Your task to perform on an android device: Go to battery settings Image 0: 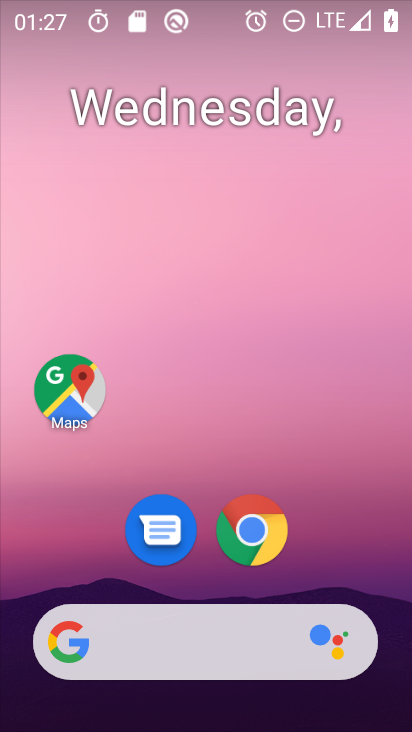
Step 0: drag from (139, 641) to (178, 50)
Your task to perform on an android device: Go to battery settings Image 1: 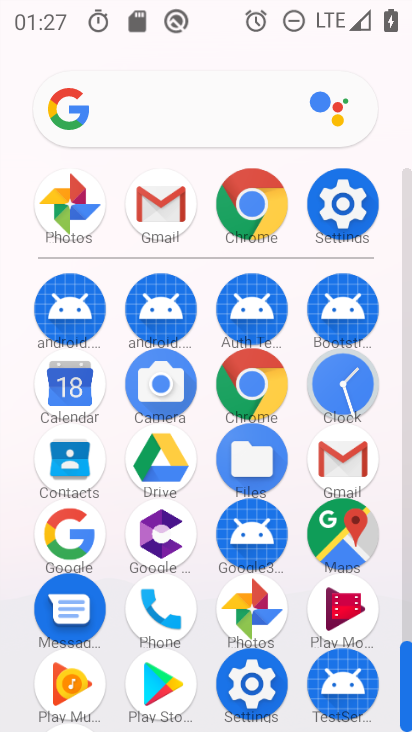
Step 1: click (334, 200)
Your task to perform on an android device: Go to battery settings Image 2: 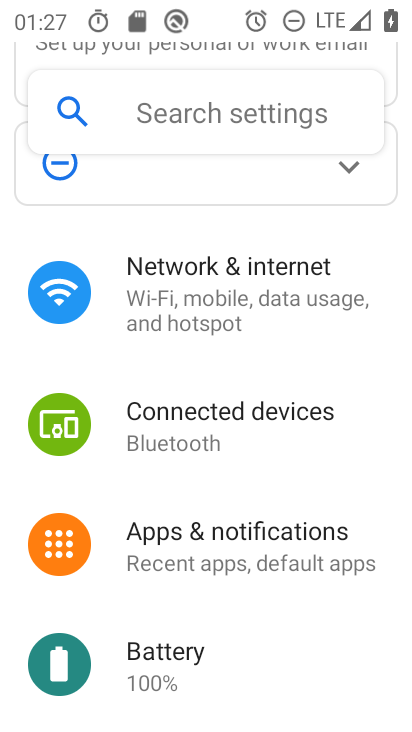
Step 2: click (177, 681)
Your task to perform on an android device: Go to battery settings Image 3: 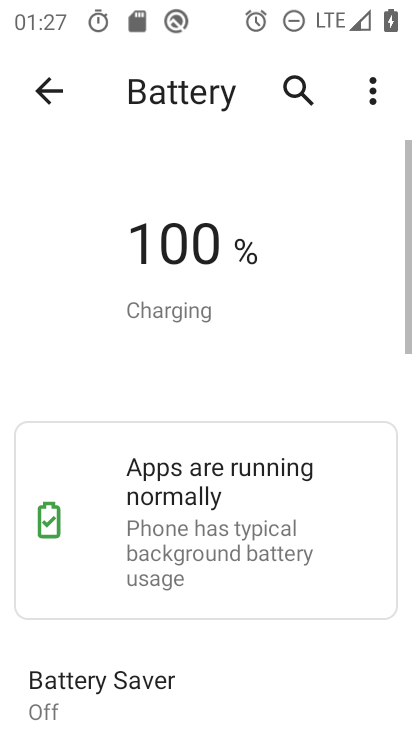
Step 3: task complete